Your task to perform on an android device: toggle notifications settings in the gmail app Image 0: 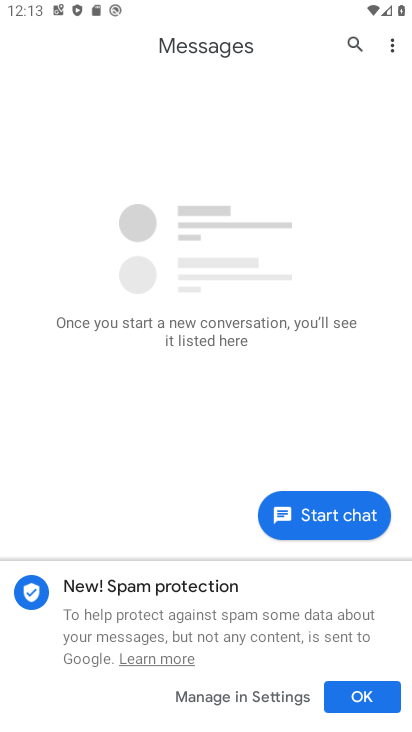
Step 0: press home button
Your task to perform on an android device: toggle notifications settings in the gmail app Image 1: 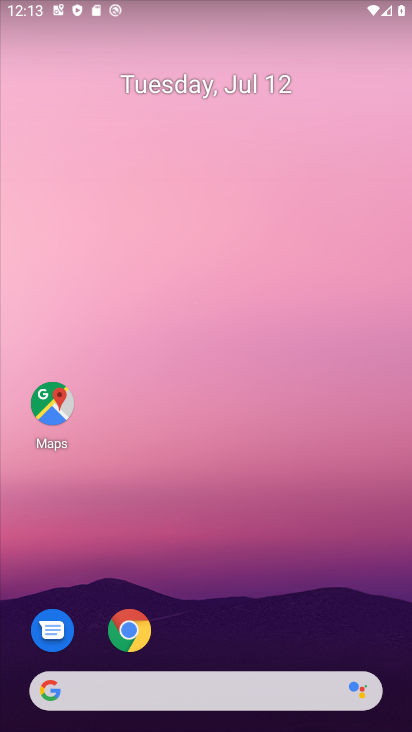
Step 1: drag from (202, 637) to (299, 188)
Your task to perform on an android device: toggle notifications settings in the gmail app Image 2: 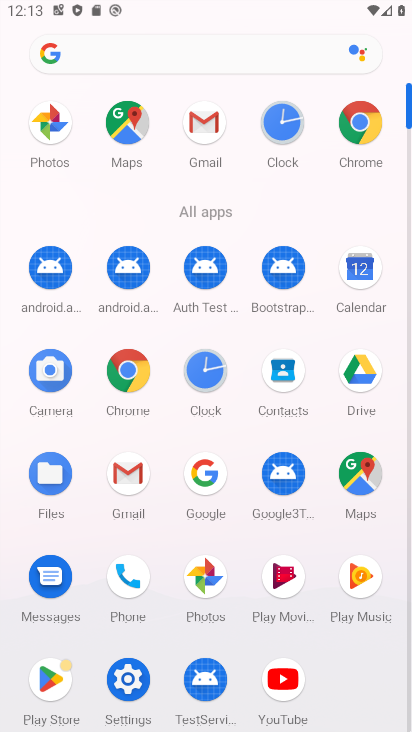
Step 2: click (118, 480)
Your task to perform on an android device: toggle notifications settings in the gmail app Image 3: 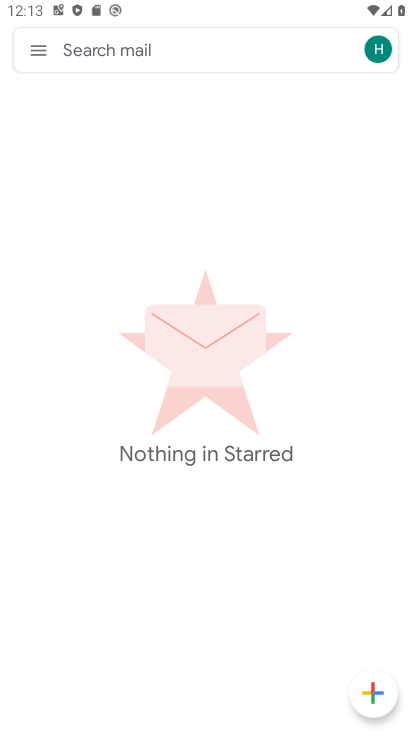
Step 3: click (33, 59)
Your task to perform on an android device: toggle notifications settings in the gmail app Image 4: 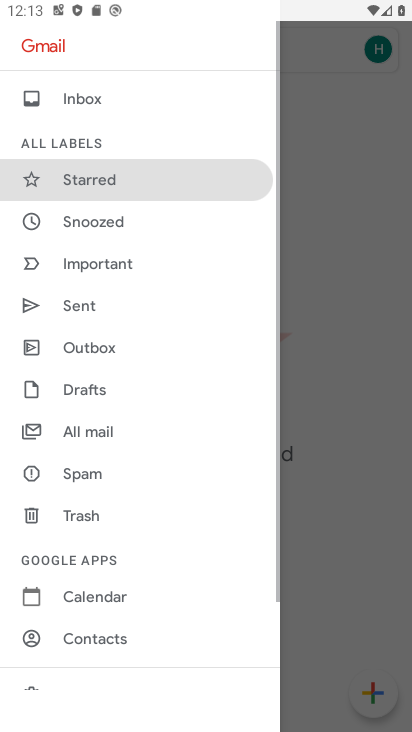
Step 4: drag from (108, 582) to (207, 204)
Your task to perform on an android device: toggle notifications settings in the gmail app Image 5: 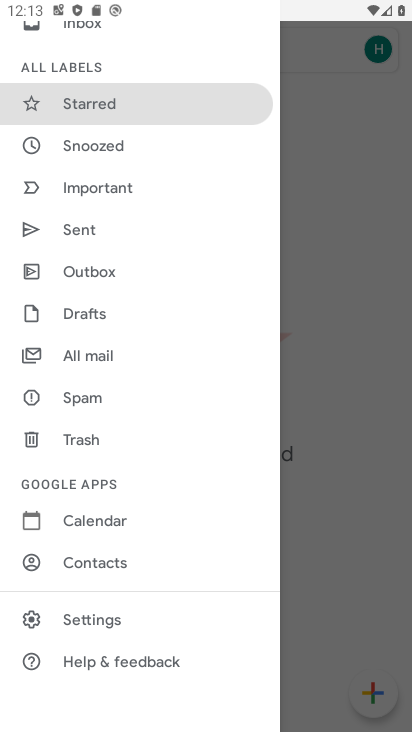
Step 5: click (113, 621)
Your task to perform on an android device: toggle notifications settings in the gmail app Image 6: 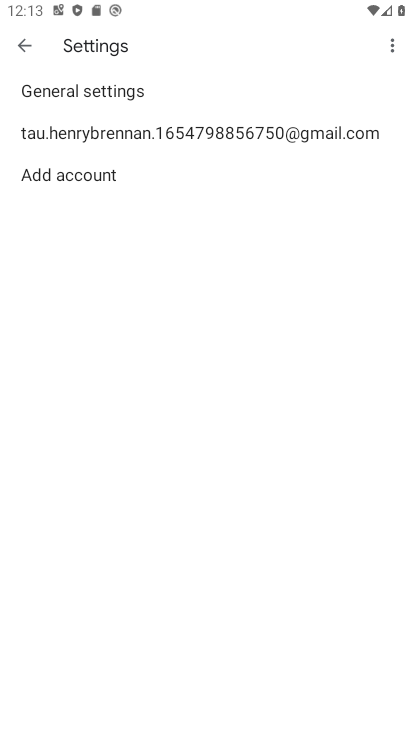
Step 6: click (234, 130)
Your task to perform on an android device: toggle notifications settings in the gmail app Image 7: 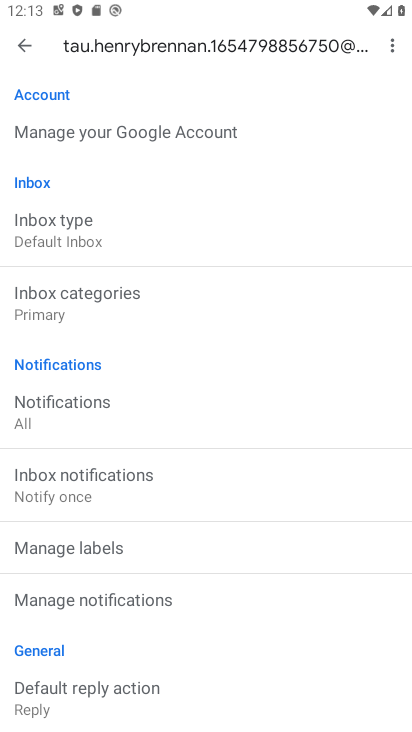
Step 7: click (143, 600)
Your task to perform on an android device: toggle notifications settings in the gmail app Image 8: 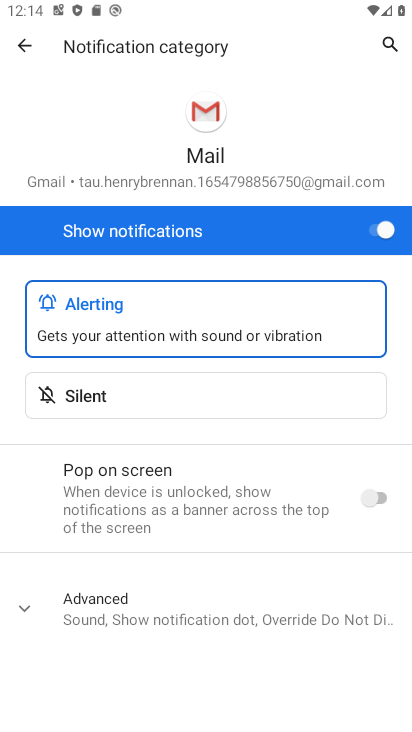
Step 8: click (183, 622)
Your task to perform on an android device: toggle notifications settings in the gmail app Image 9: 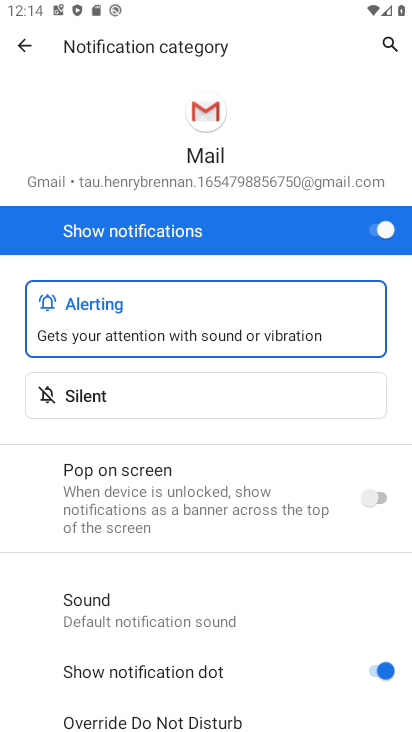
Step 9: drag from (177, 663) to (285, 329)
Your task to perform on an android device: toggle notifications settings in the gmail app Image 10: 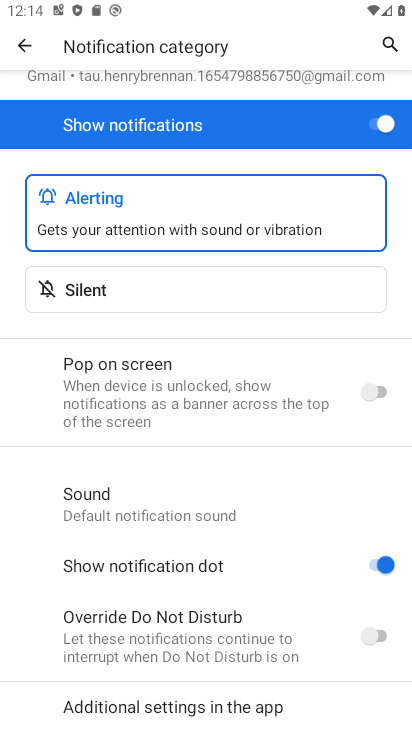
Step 10: click (371, 124)
Your task to perform on an android device: toggle notifications settings in the gmail app Image 11: 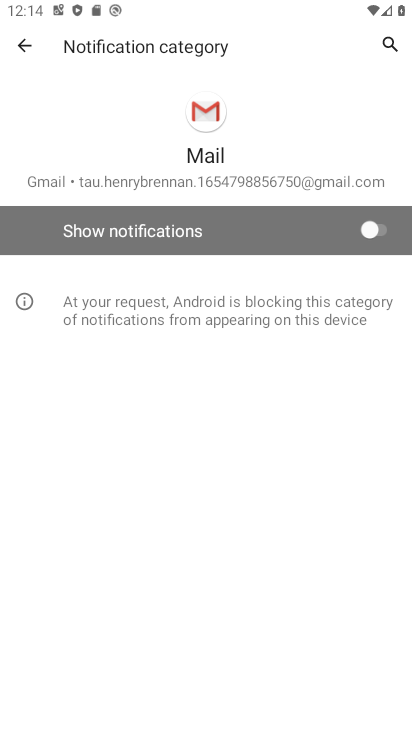
Step 11: task complete